Your task to perform on an android device: What's on my calendar tomorrow? Image 0: 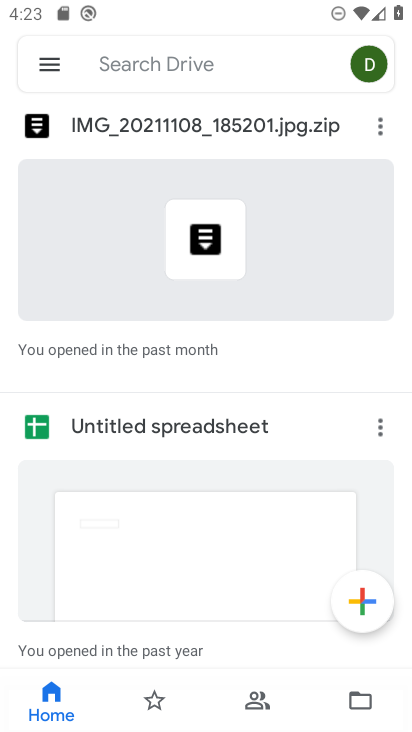
Step 0: press back button
Your task to perform on an android device: What's on my calendar tomorrow? Image 1: 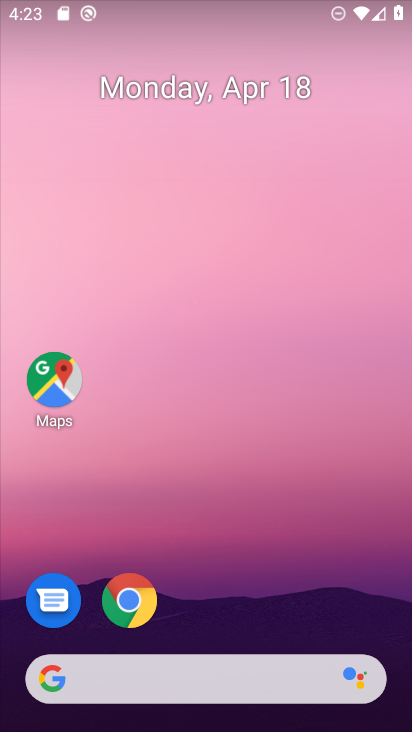
Step 1: drag from (241, 698) to (252, 284)
Your task to perform on an android device: What's on my calendar tomorrow? Image 2: 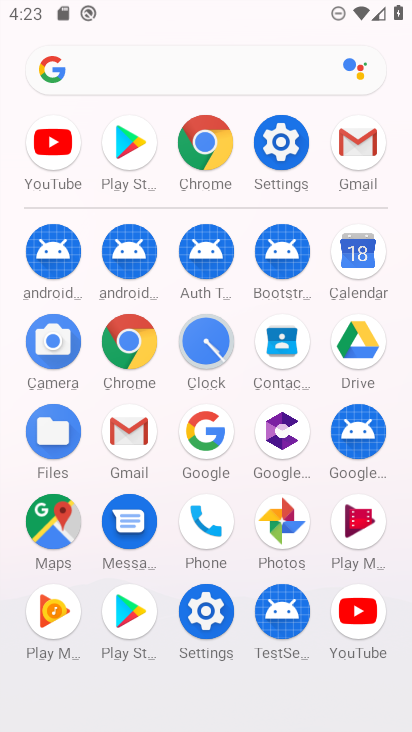
Step 2: click (344, 272)
Your task to perform on an android device: What's on my calendar tomorrow? Image 3: 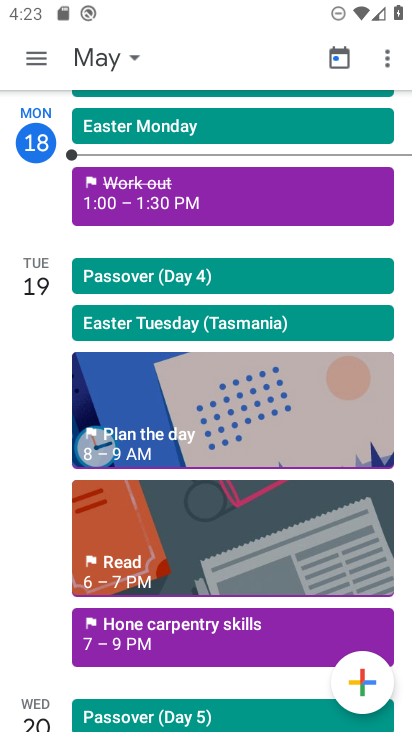
Step 3: click (33, 282)
Your task to perform on an android device: What's on my calendar tomorrow? Image 4: 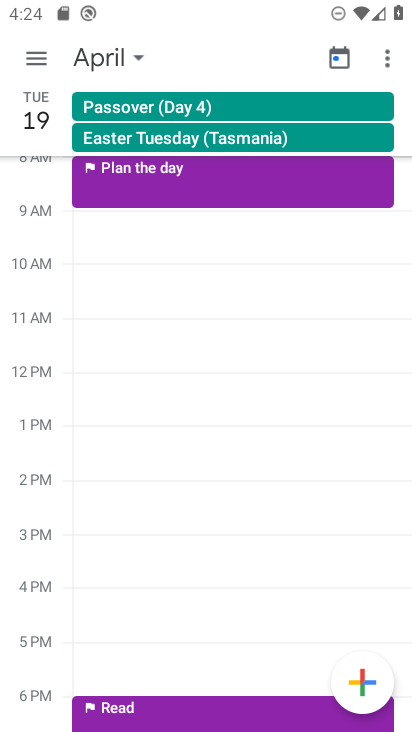
Step 4: task complete